Your task to perform on an android device: change the clock display to analog Image 0: 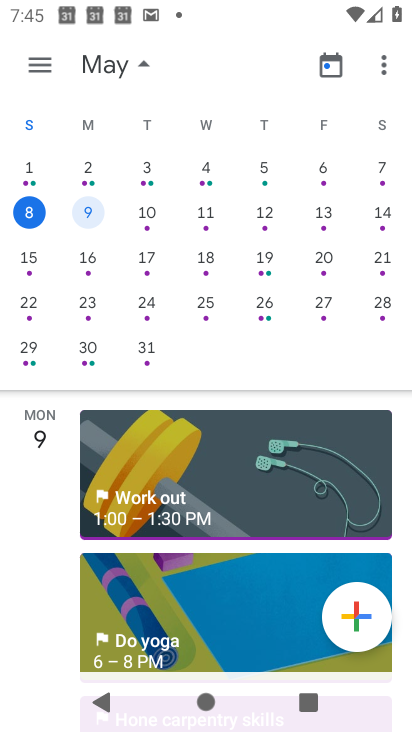
Step 0: press home button
Your task to perform on an android device: change the clock display to analog Image 1: 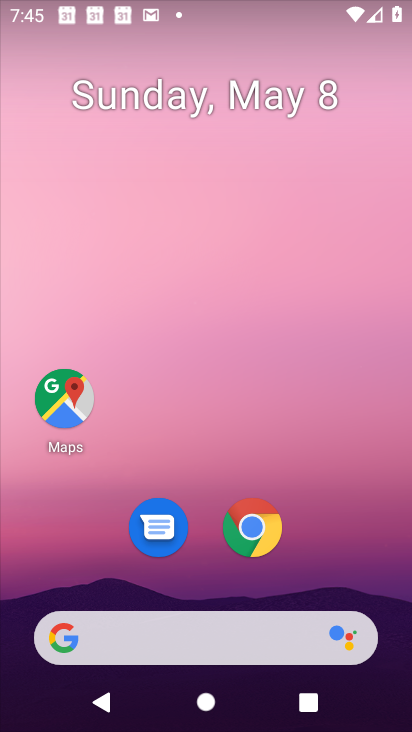
Step 1: drag from (308, 569) to (273, 17)
Your task to perform on an android device: change the clock display to analog Image 2: 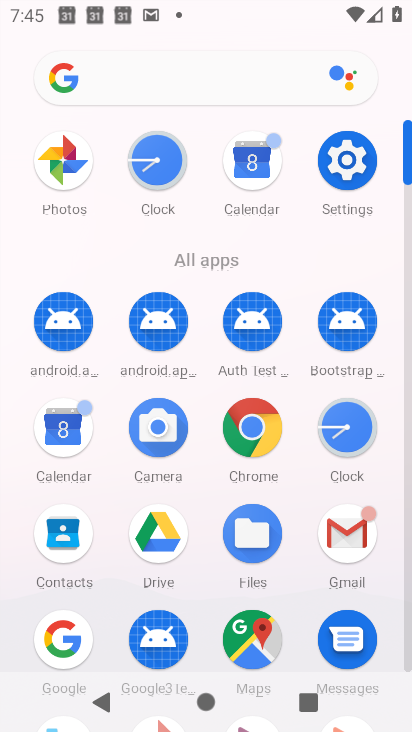
Step 2: click (142, 163)
Your task to perform on an android device: change the clock display to analog Image 3: 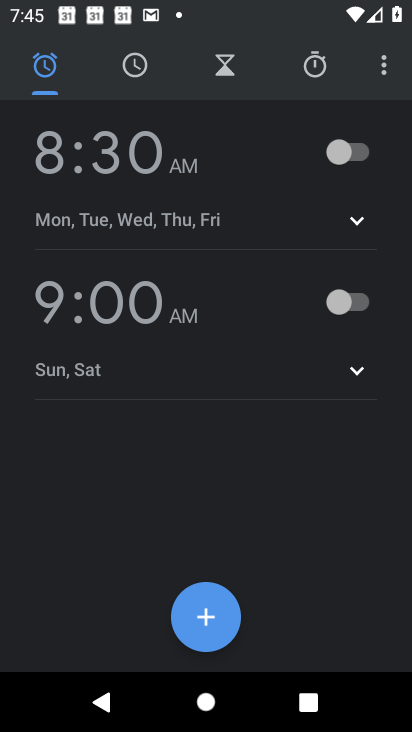
Step 3: click (379, 66)
Your task to perform on an android device: change the clock display to analog Image 4: 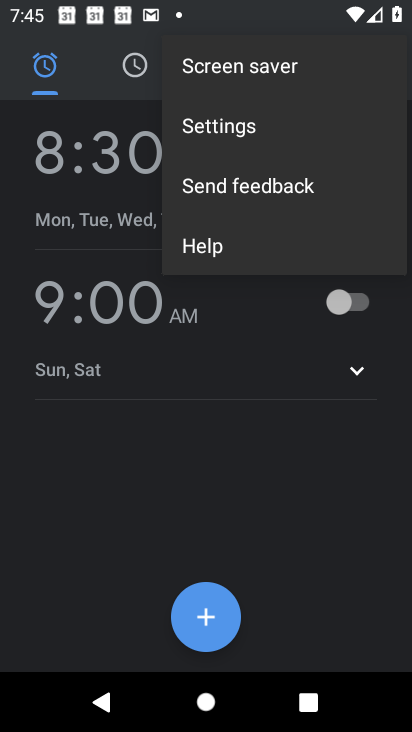
Step 4: click (329, 124)
Your task to perform on an android device: change the clock display to analog Image 5: 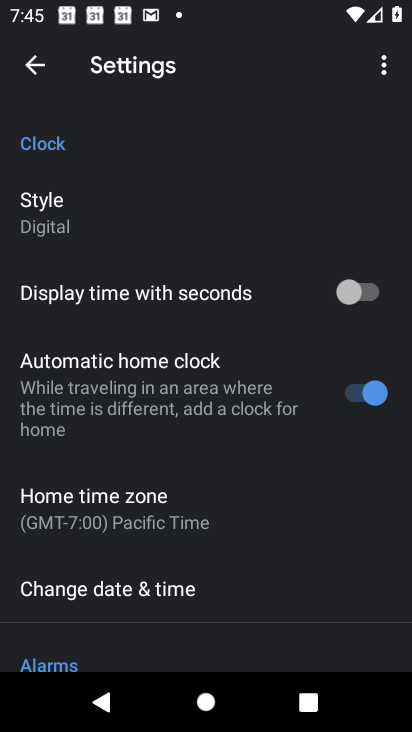
Step 5: click (58, 229)
Your task to perform on an android device: change the clock display to analog Image 6: 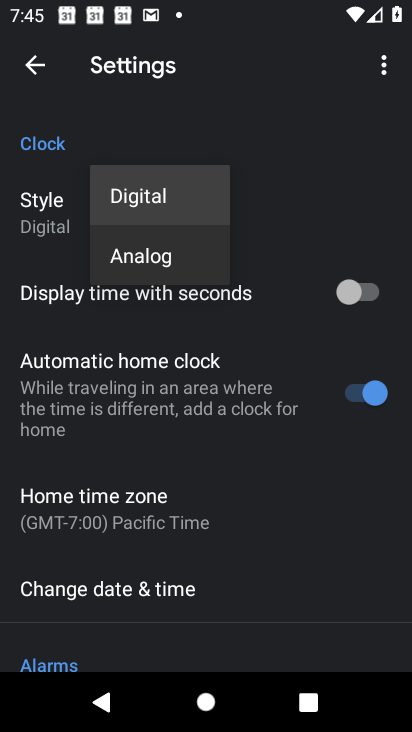
Step 6: click (140, 257)
Your task to perform on an android device: change the clock display to analog Image 7: 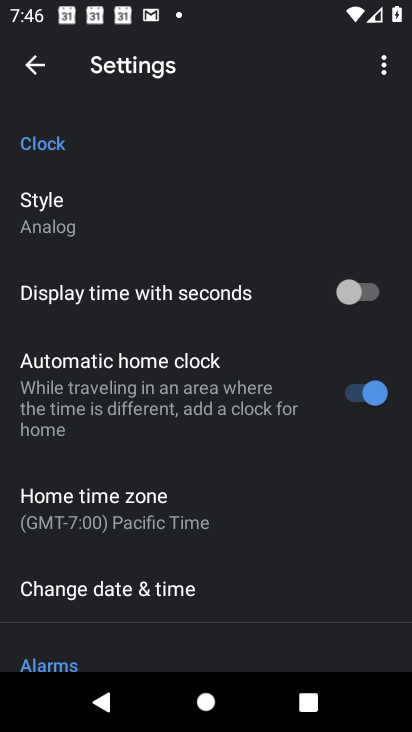
Step 7: task complete